Your task to perform on an android device: refresh tabs in the chrome app Image 0: 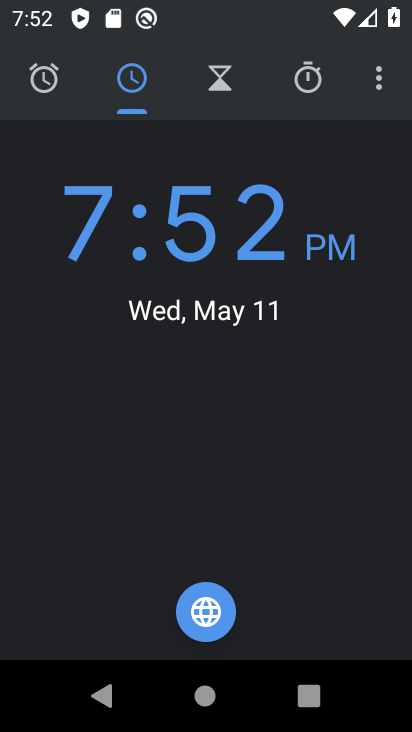
Step 0: press home button
Your task to perform on an android device: refresh tabs in the chrome app Image 1: 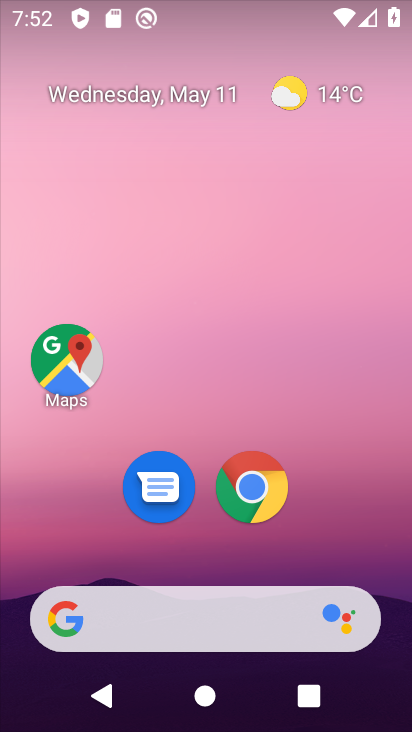
Step 1: click (256, 484)
Your task to perform on an android device: refresh tabs in the chrome app Image 2: 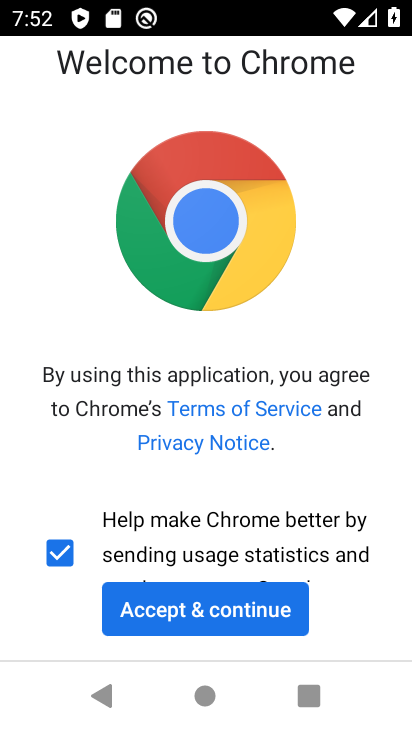
Step 2: click (225, 611)
Your task to perform on an android device: refresh tabs in the chrome app Image 3: 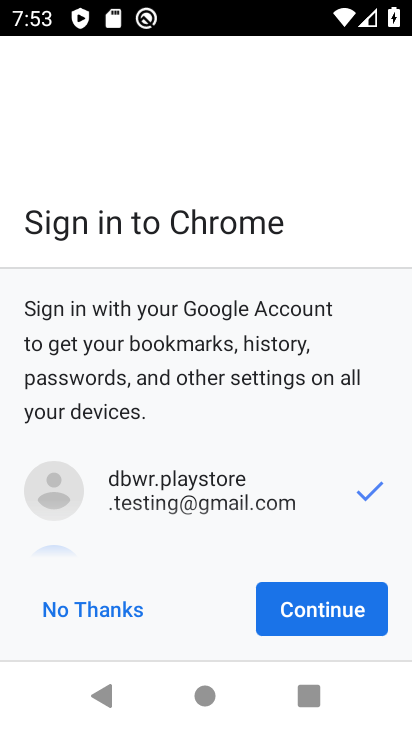
Step 3: click (323, 614)
Your task to perform on an android device: refresh tabs in the chrome app Image 4: 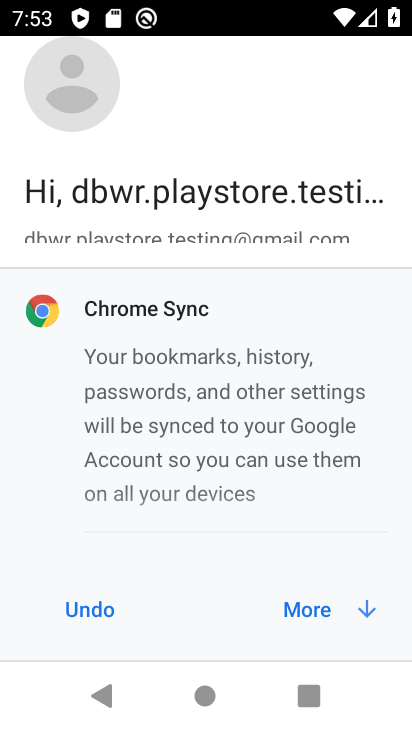
Step 4: click (316, 611)
Your task to perform on an android device: refresh tabs in the chrome app Image 5: 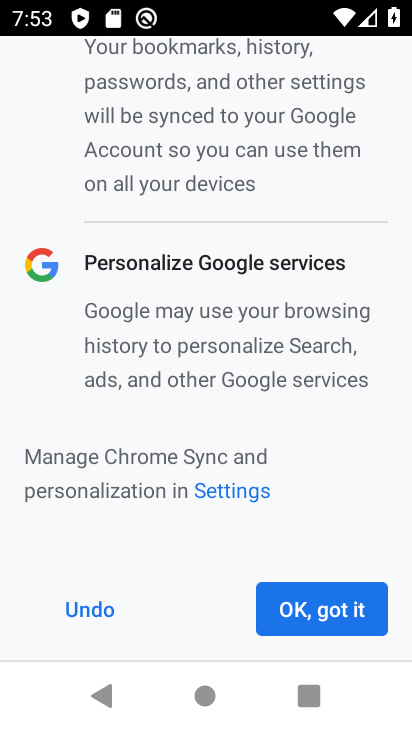
Step 5: click (316, 611)
Your task to perform on an android device: refresh tabs in the chrome app Image 6: 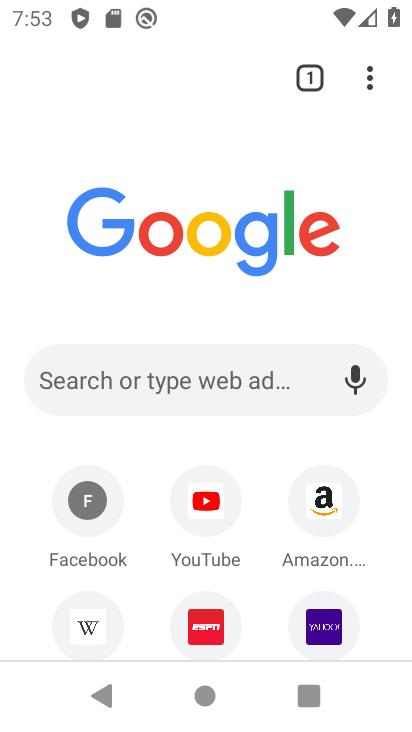
Step 6: click (370, 80)
Your task to perform on an android device: refresh tabs in the chrome app Image 7: 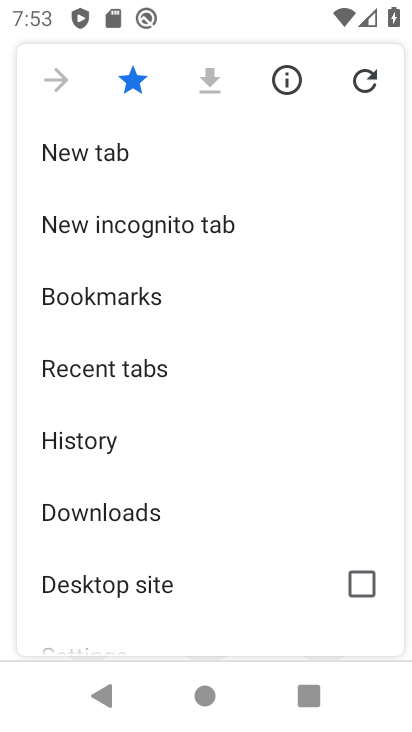
Step 7: click (370, 80)
Your task to perform on an android device: refresh tabs in the chrome app Image 8: 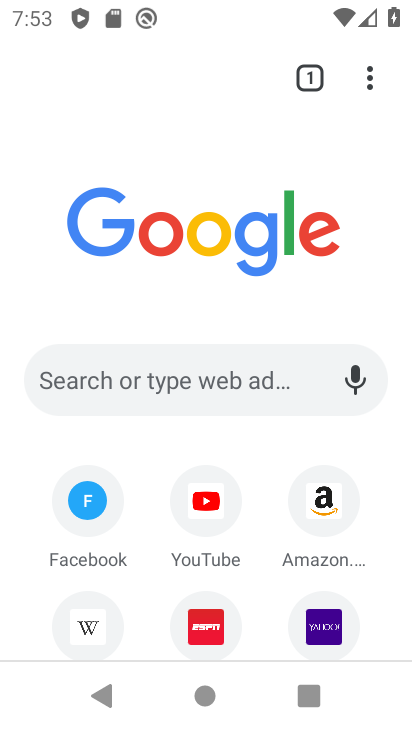
Step 8: task complete